Your task to perform on an android device: turn on wifi Image 0: 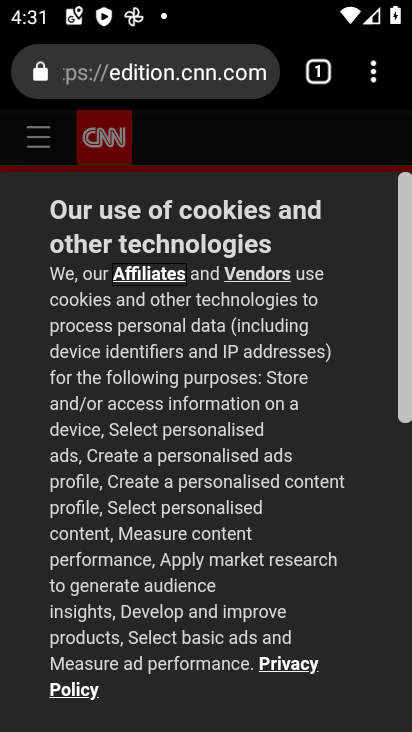
Step 0: press home button
Your task to perform on an android device: turn on wifi Image 1: 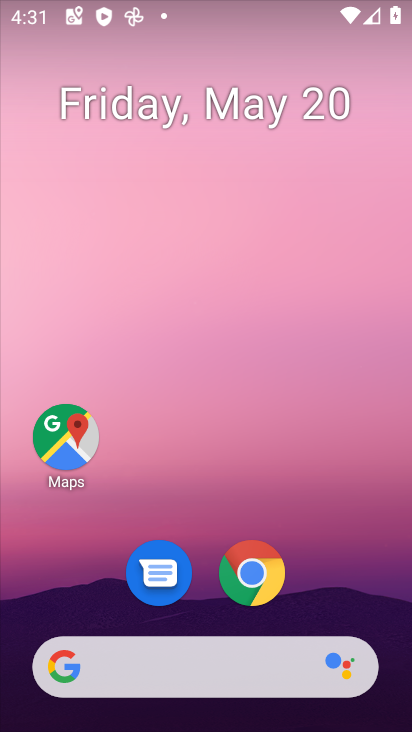
Step 1: drag from (385, 612) to (314, 111)
Your task to perform on an android device: turn on wifi Image 2: 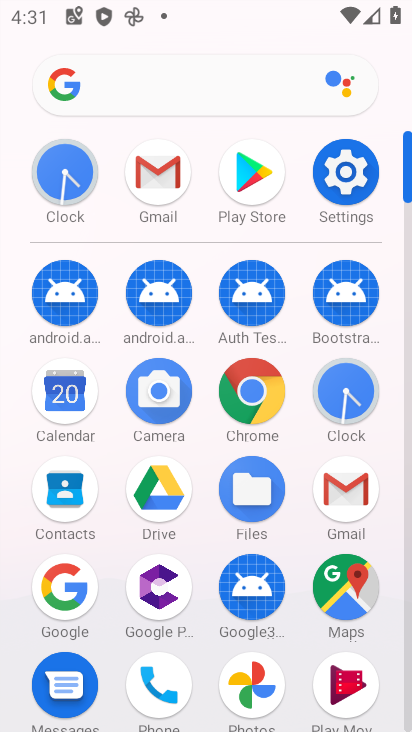
Step 2: click (407, 708)
Your task to perform on an android device: turn on wifi Image 3: 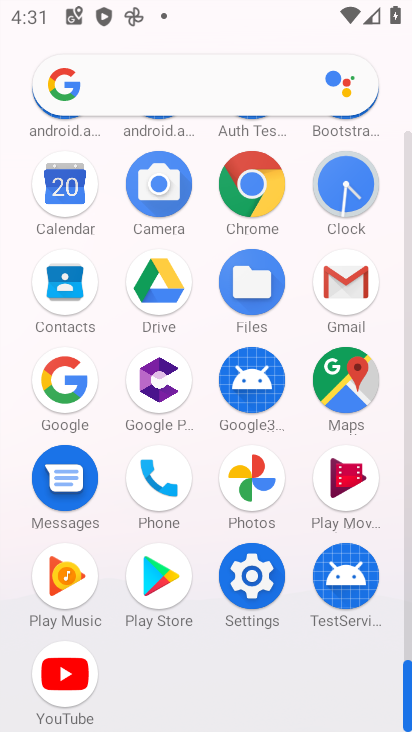
Step 3: click (253, 578)
Your task to perform on an android device: turn on wifi Image 4: 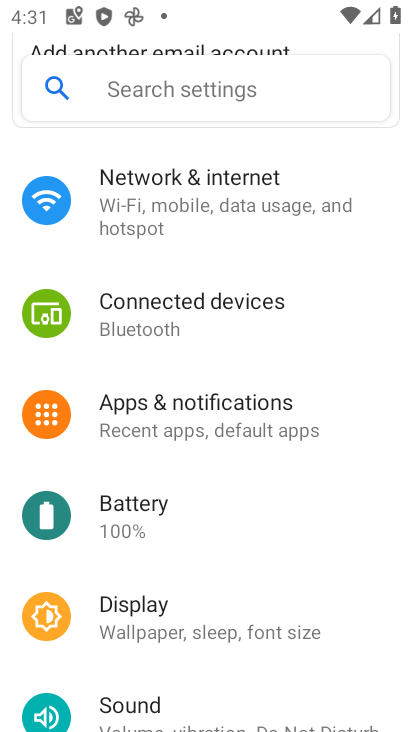
Step 4: click (148, 176)
Your task to perform on an android device: turn on wifi Image 5: 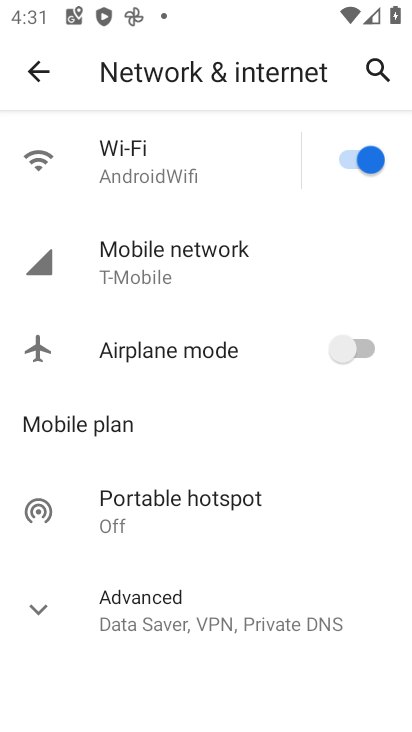
Step 5: task complete